Your task to perform on an android device: turn on wifi Image 0: 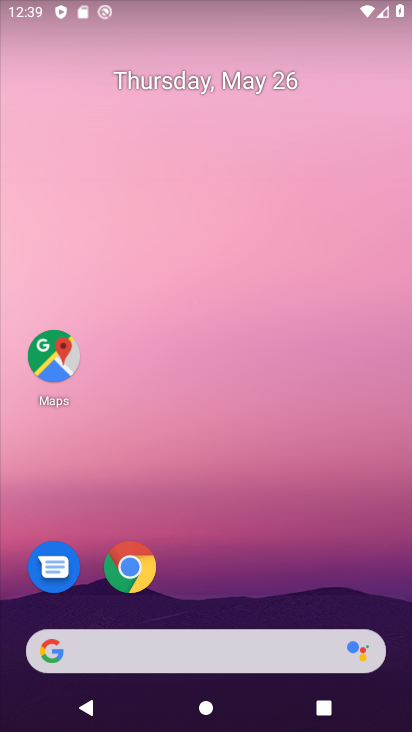
Step 0: drag from (219, 602) to (209, 64)
Your task to perform on an android device: turn on wifi Image 1: 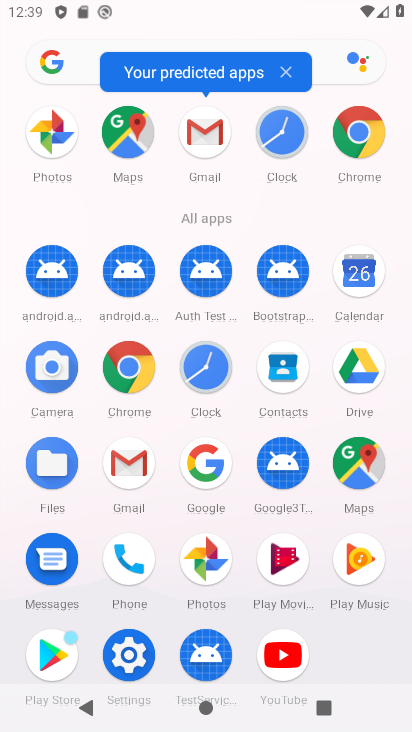
Step 1: click (135, 661)
Your task to perform on an android device: turn on wifi Image 2: 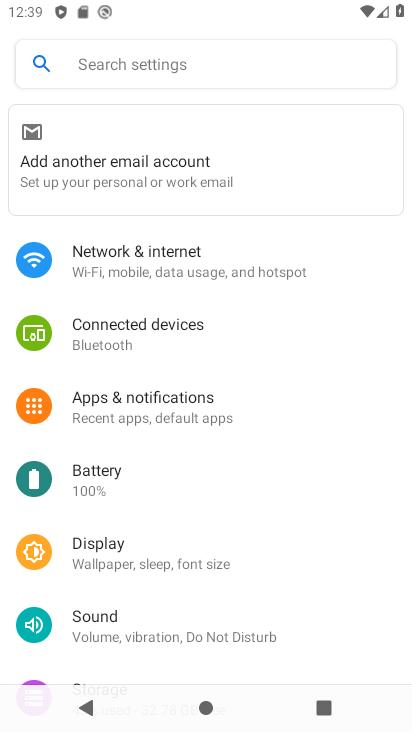
Step 2: click (156, 279)
Your task to perform on an android device: turn on wifi Image 3: 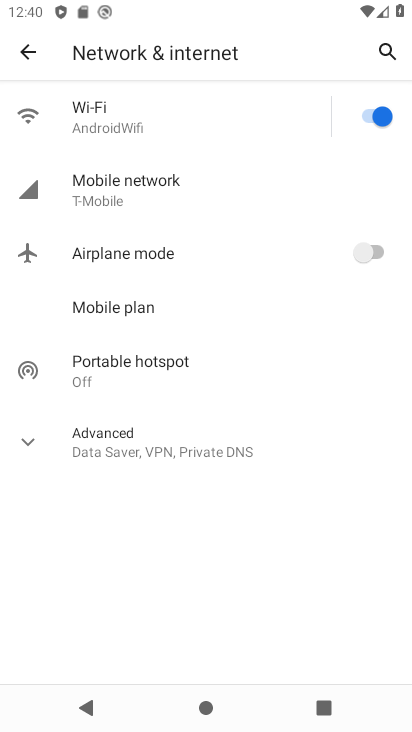
Step 3: task complete